Your task to perform on an android device: Open location settings Image 0: 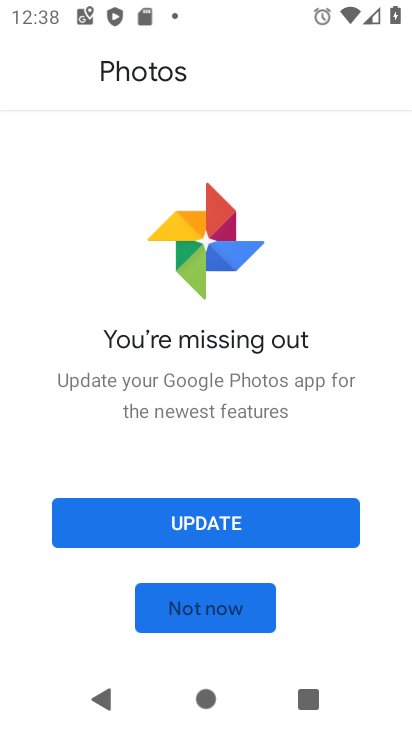
Step 0: press home button
Your task to perform on an android device: Open location settings Image 1: 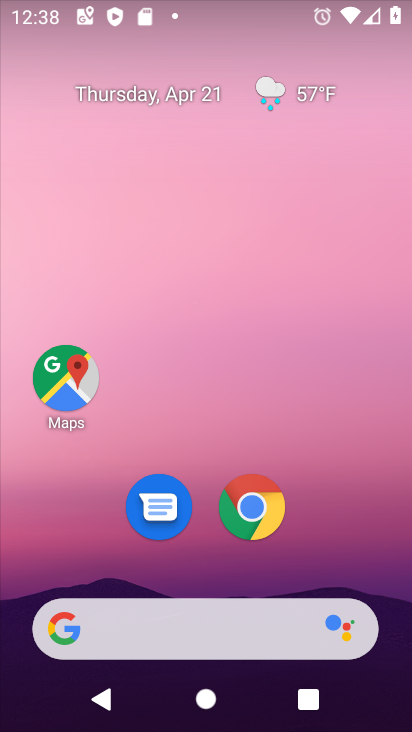
Step 1: drag from (210, 465) to (292, 5)
Your task to perform on an android device: Open location settings Image 2: 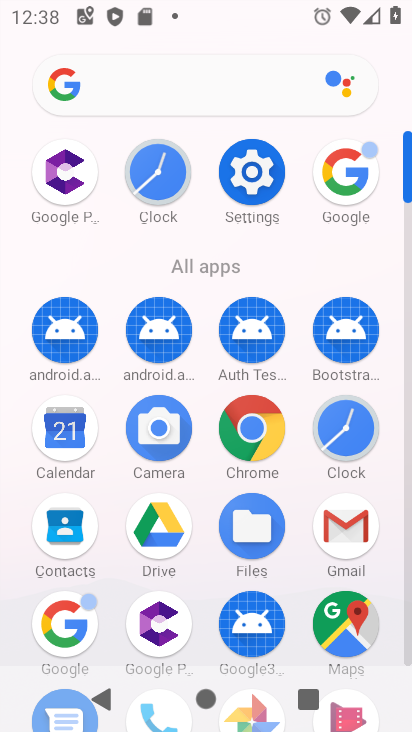
Step 2: click (252, 171)
Your task to perform on an android device: Open location settings Image 3: 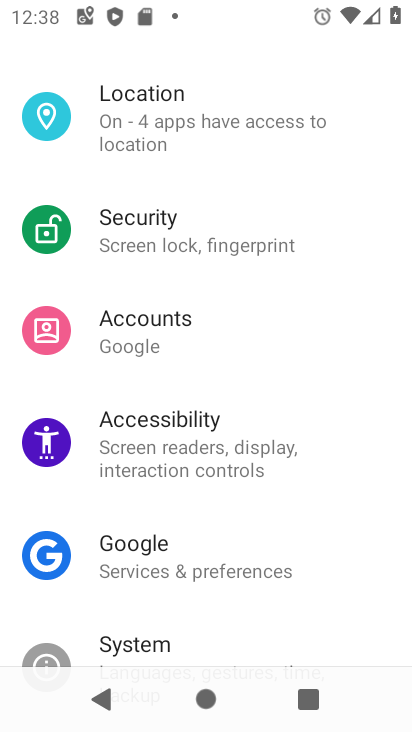
Step 3: click (210, 119)
Your task to perform on an android device: Open location settings Image 4: 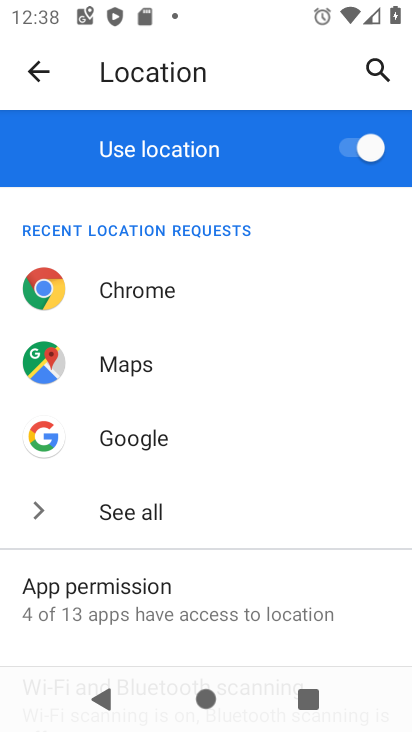
Step 4: task complete